Your task to perform on an android device: find snoozed emails in the gmail app Image 0: 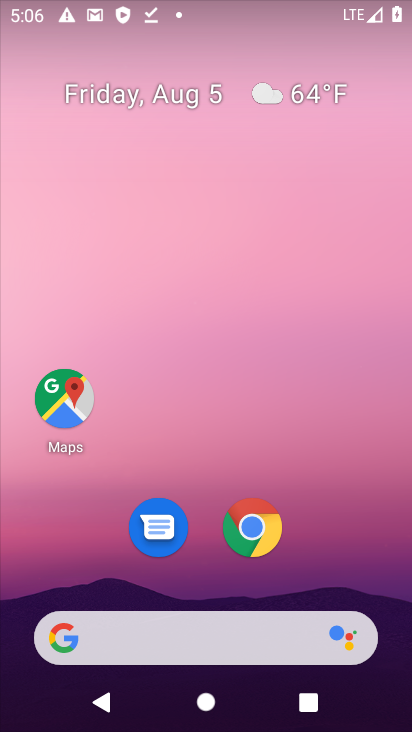
Step 0: drag from (212, 583) to (237, 187)
Your task to perform on an android device: find snoozed emails in the gmail app Image 1: 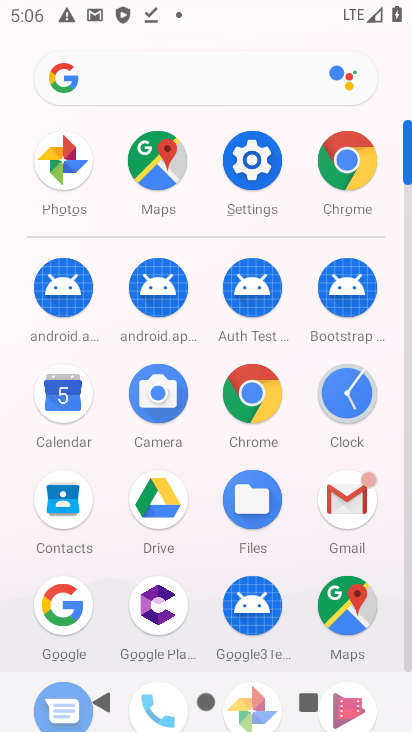
Step 1: click (328, 502)
Your task to perform on an android device: find snoozed emails in the gmail app Image 2: 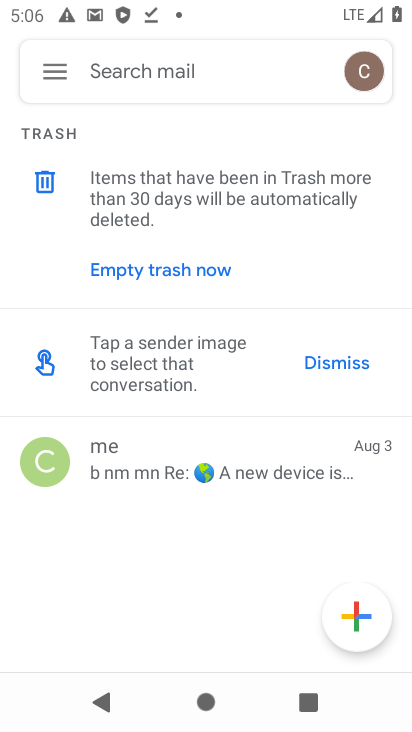
Step 2: click (68, 66)
Your task to perform on an android device: find snoozed emails in the gmail app Image 3: 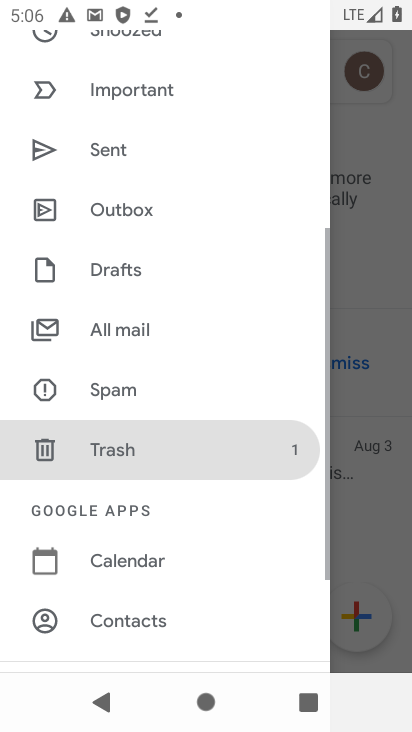
Step 3: drag from (158, 474) to (200, 140)
Your task to perform on an android device: find snoozed emails in the gmail app Image 4: 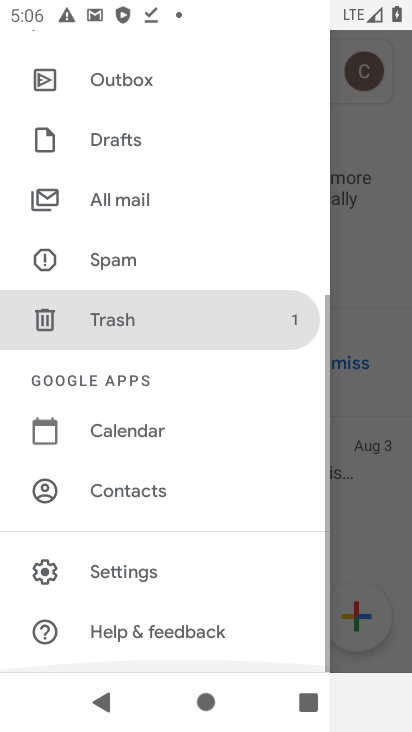
Step 4: drag from (164, 380) to (176, 728)
Your task to perform on an android device: find snoozed emails in the gmail app Image 5: 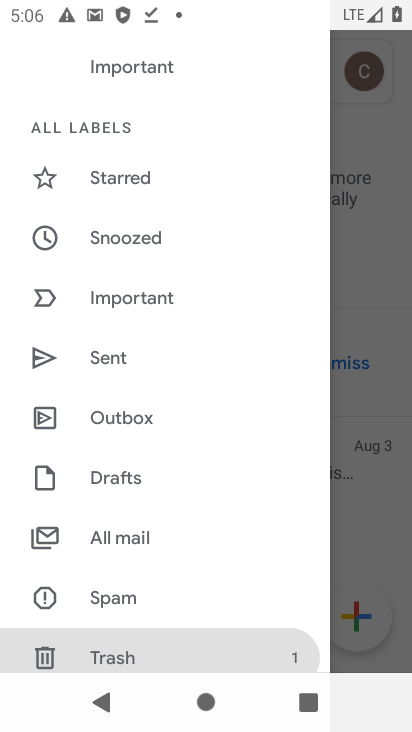
Step 5: click (117, 233)
Your task to perform on an android device: find snoozed emails in the gmail app Image 6: 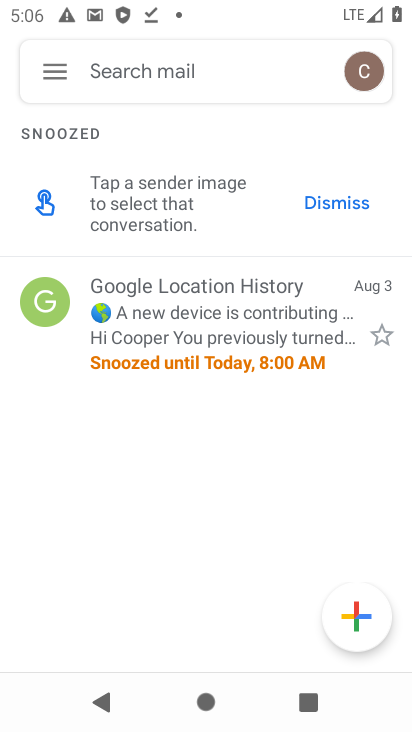
Step 6: task complete